Your task to perform on an android device: Open maps Image 0: 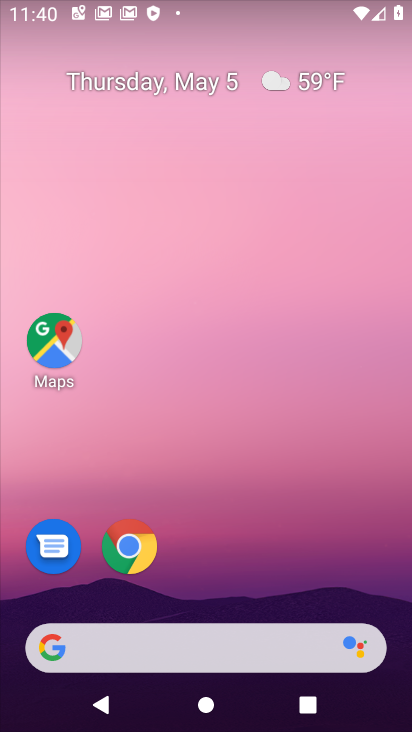
Step 0: drag from (282, 586) to (289, 520)
Your task to perform on an android device: Open maps Image 1: 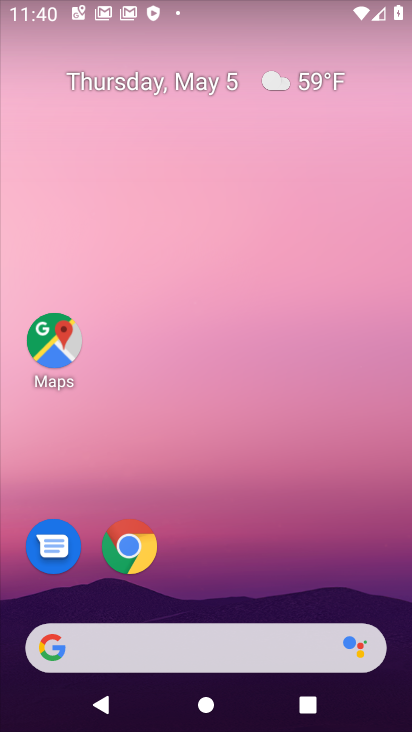
Step 1: click (36, 326)
Your task to perform on an android device: Open maps Image 2: 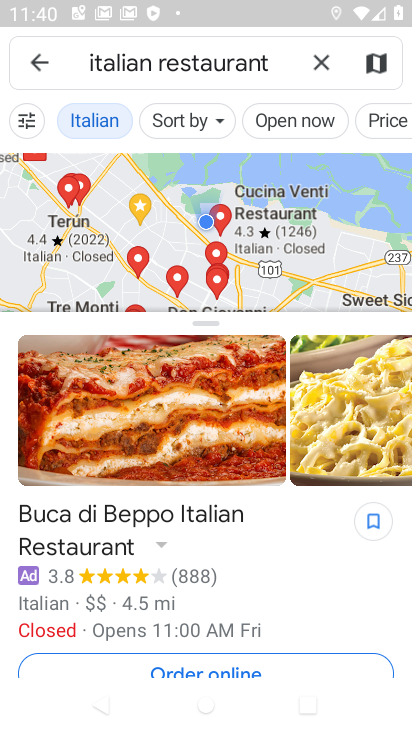
Step 2: task complete